Your task to perform on an android device: Open the calendar app, open the side menu, and click the "Day" option Image 0: 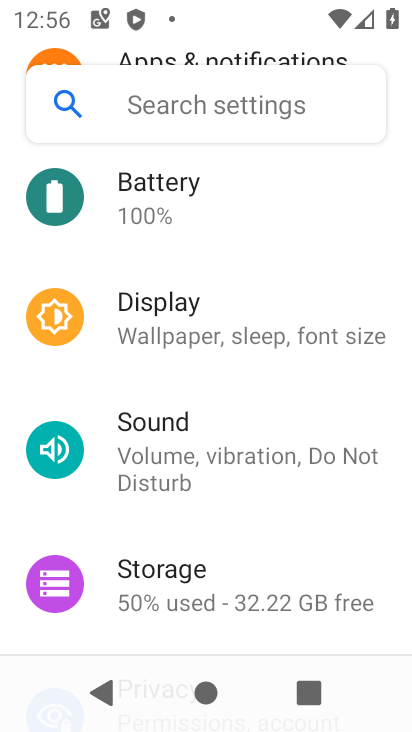
Step 0: press home button
Your task to perform on an android device: Open the calendar app, open the side menu, and click the "Day" option Image 1: 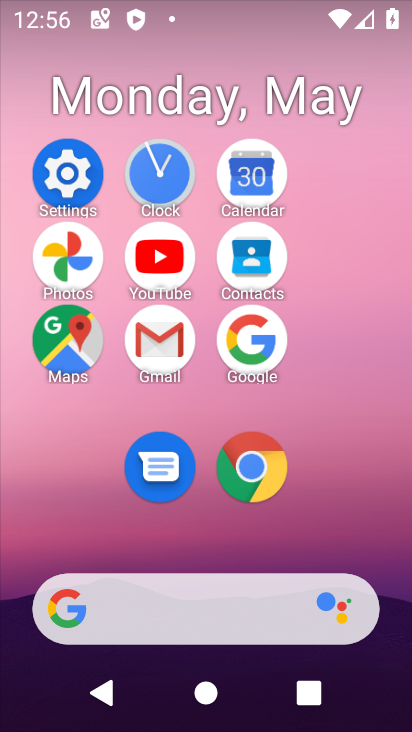
Step 1: click (234, 192)
Your task to perform on an android device: Open the calendar app, open the side menu, and click the "Day" option Image 2: 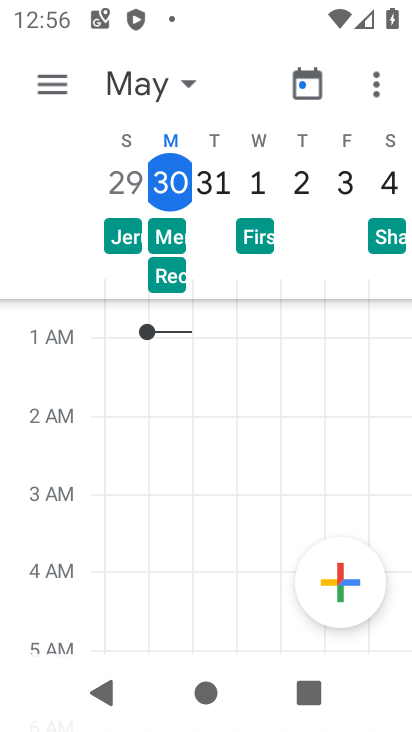
Step 2: click (56, 90)
Your task to perform on an android device: Open the calendar app, open the side menu, and click the "Day" option Image 3: 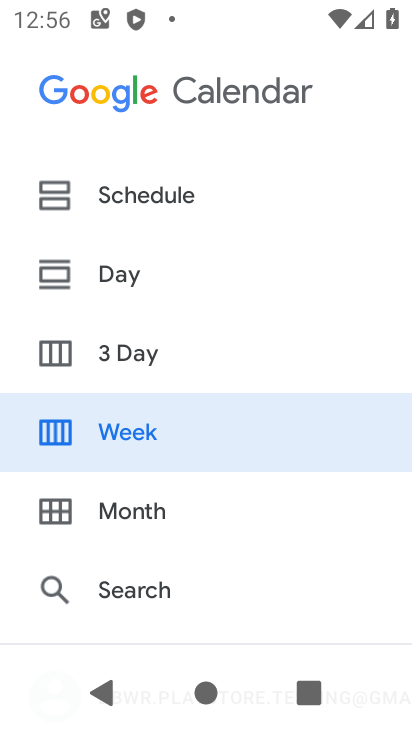
Step 3: click (141, 273)
Your task to perform on an android device: Open the calendar app, open the side menu, and click the "Day" option Image 4: 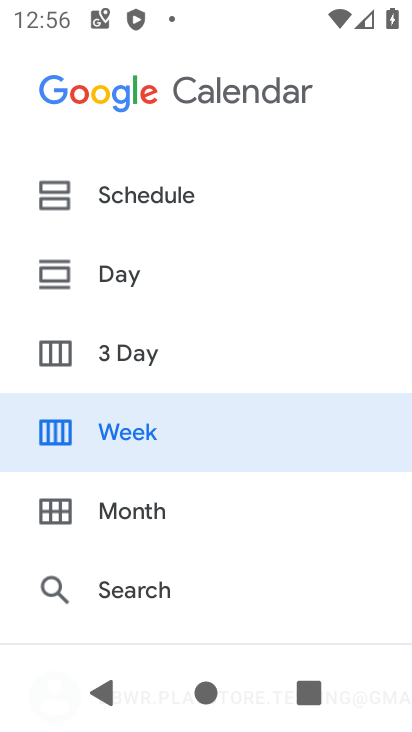
Step 4: click (119, 282)
Your task to perform on an android device: Open the calendar app, open the side menu, and click the "Day" option Image 5: 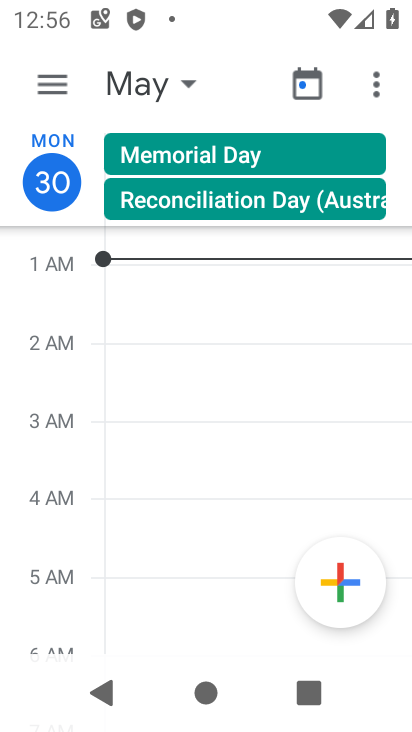
Step 5: task complete